Your task to perform on an android device: delete location history Image 0: 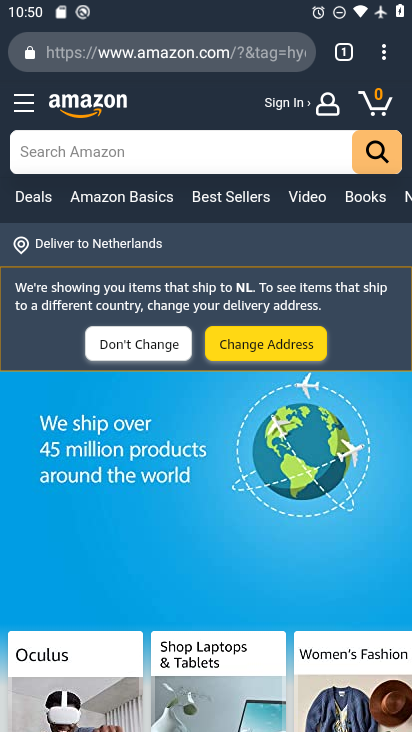
Step 0: press home button
Your task to perform on an android device: delete location history Image 1: 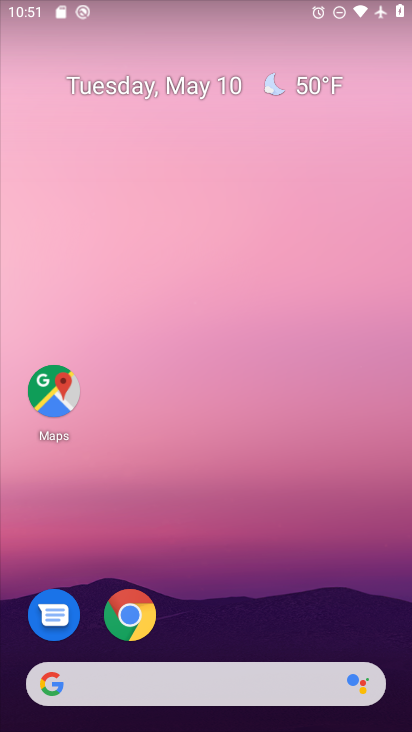
Step 1: click (49, 390)
Your task to perform on an android device: delete location history Image 2: 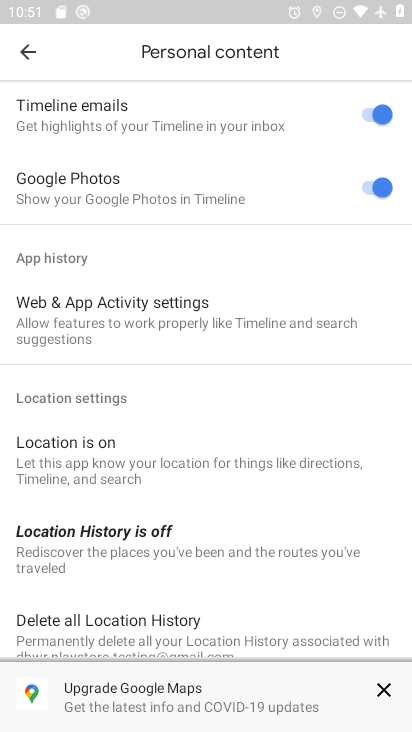
Step 2: click (112, 620)
Your task to perform on an android device: delete location history Image 3: 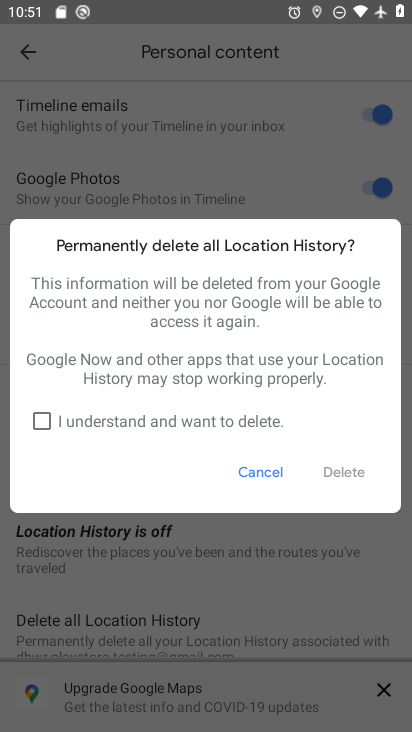
Step 3: click (37, 417)
Your task to perform on an android device: delete location history Image 4: 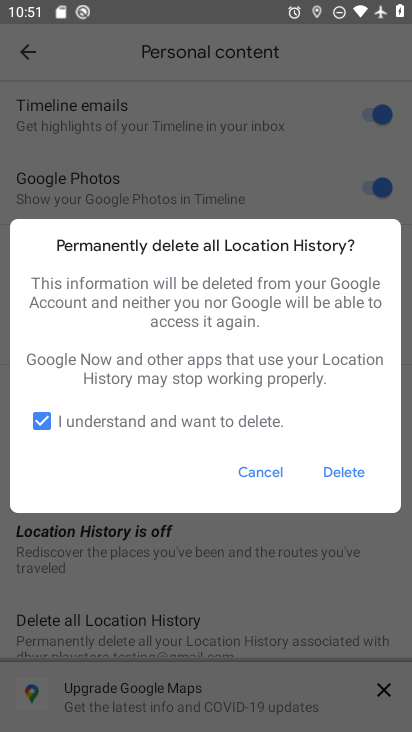
Step 4: click (345, 470)
Your task to perform on an android device: delete location history Image 5: 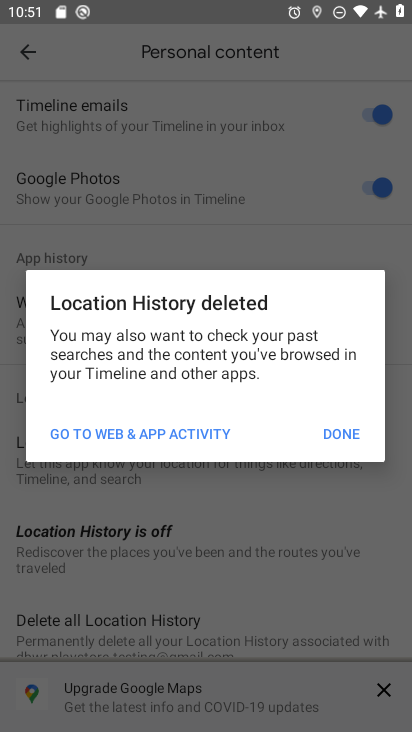
Step 5: click (338, 434)
Your task to perform on an android device: delete location history Image 6: 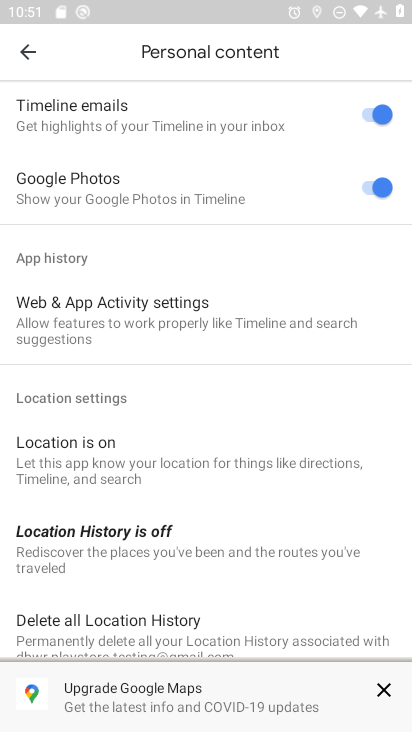
Step 6: task complete